Your task to perform on an android device: Go to notification settings Image 0: 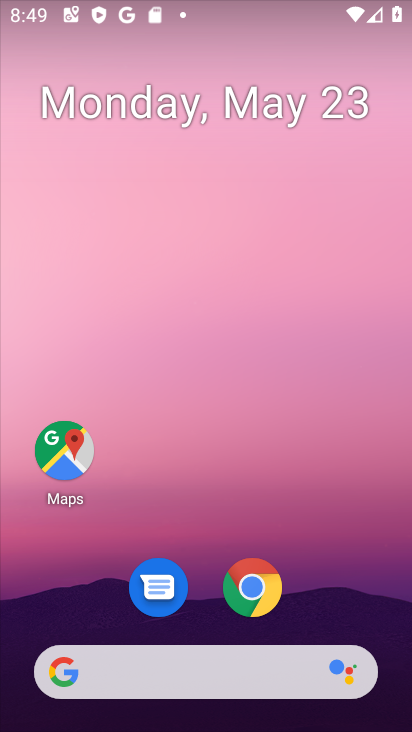
Step 0: drag from (157, 503) to (268, 90)
Your task to perform on an android device: Go to notification settings Image 1: 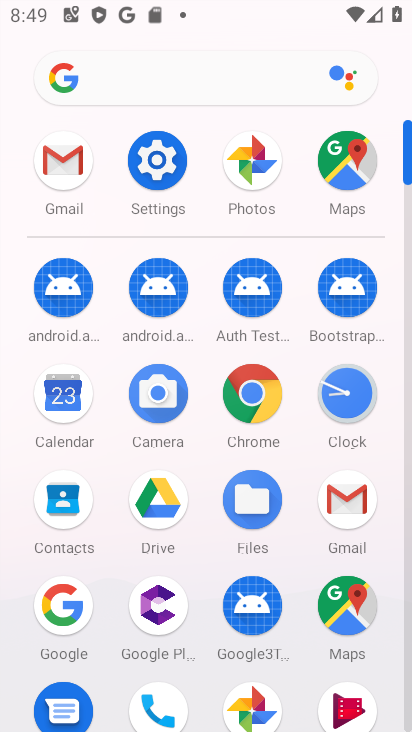
Step 1: click (157, 181)
Your task to perform on an android device: Go to notification settings Image 2: 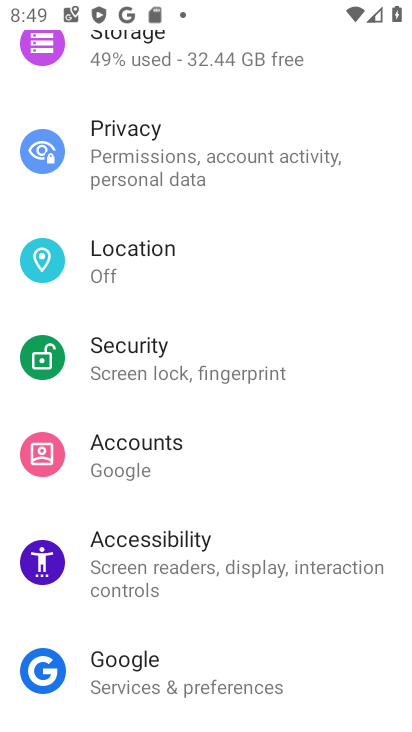
Step 2: drag from (246, 181) to (182, 696)
Your task to perform on an android device: Go to notification settings Image 3: 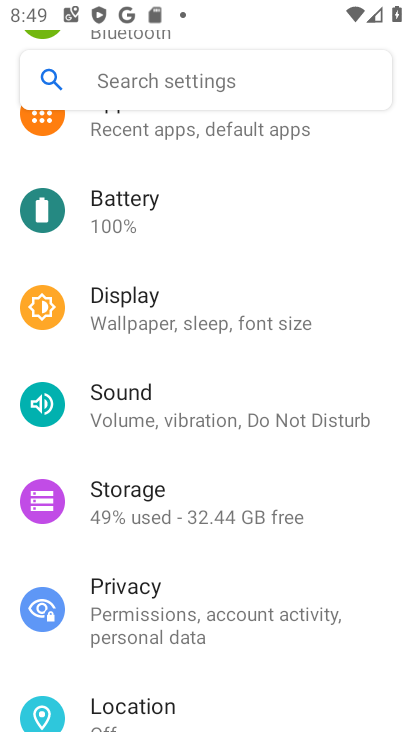
Step 3: drag from (233, 229) to (159, 725)
Your task to perform on an android device: Go to notification settings Image 4: 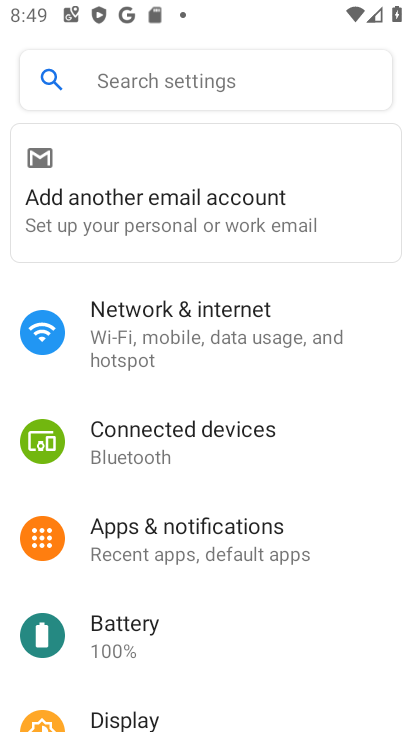
Step 4: click (211, 533)
Your task to perform on an android device: Go to notification settings Image 5: 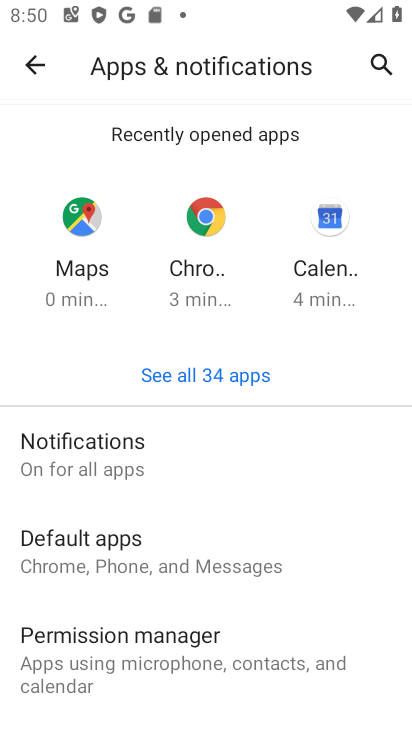
Step 5: task complete